Your task to perform on an android device: Open settings on Google Maps Image 0: 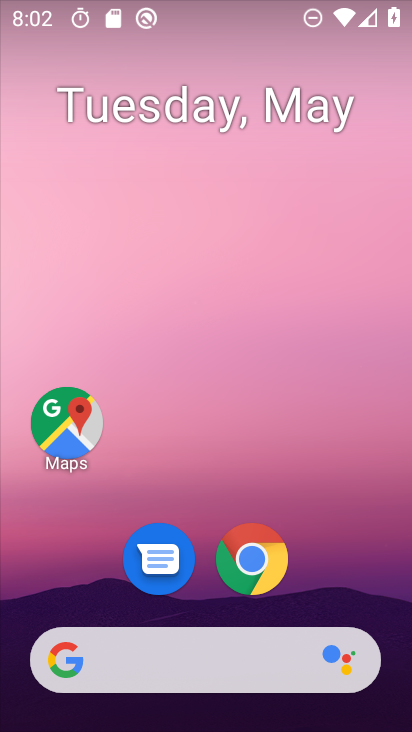
Step 0: drag from (400, 644) to (318, 6)
Your task to perform on an android device: Open settings on Google Maps Image 1: 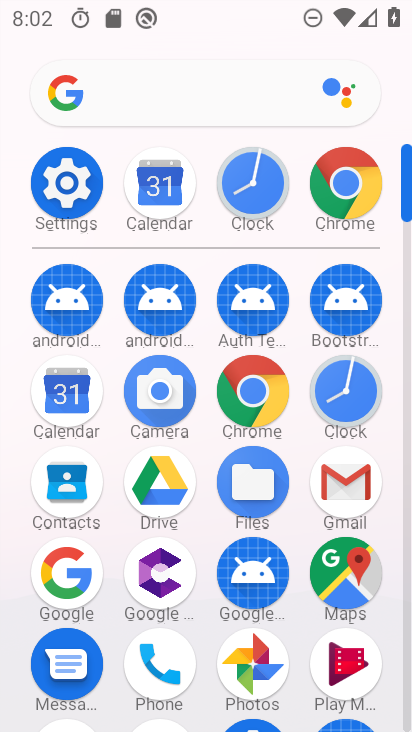
Step 1: click (364, 560)
Your task to perform on an android device: Open settings on Google Maps Image 2: 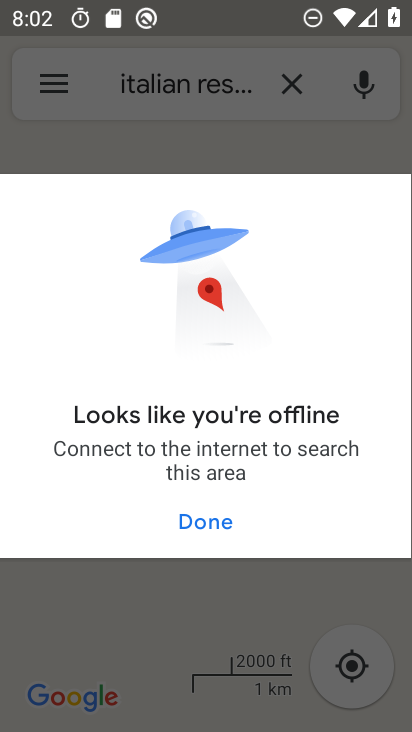
Step 2: press home button
Your task to perform on an android device: Open settings on Google Maps Image 3: 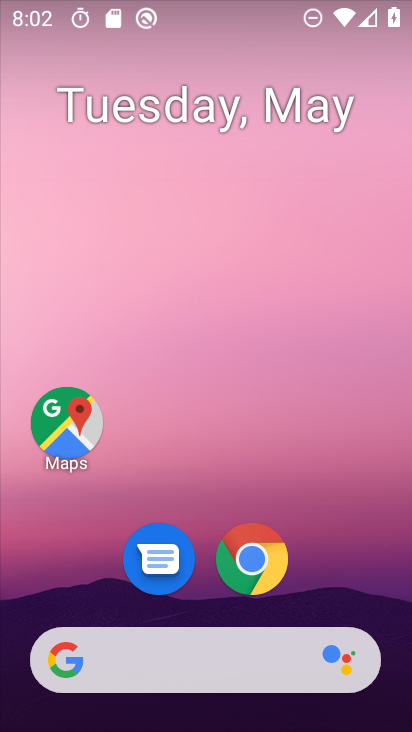
Step 3: drag from (358, 475) to (255, 5)
Your task to perform on an android device: Open settings on Google Maps Image 4: 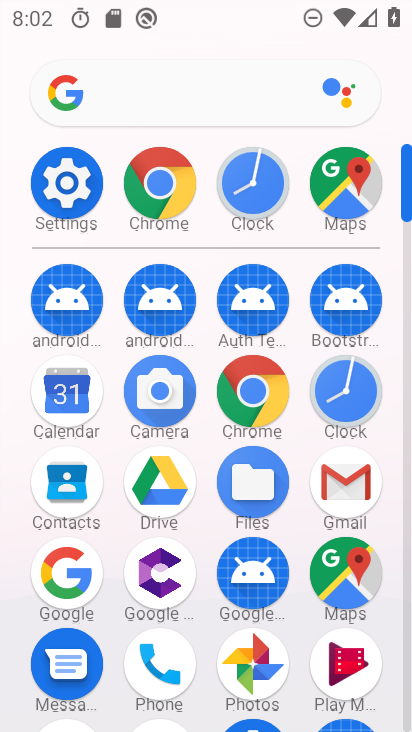
Step 4: click (358, 553)
Your task to perform on an android device: Open settings on Google Maps Image 5: 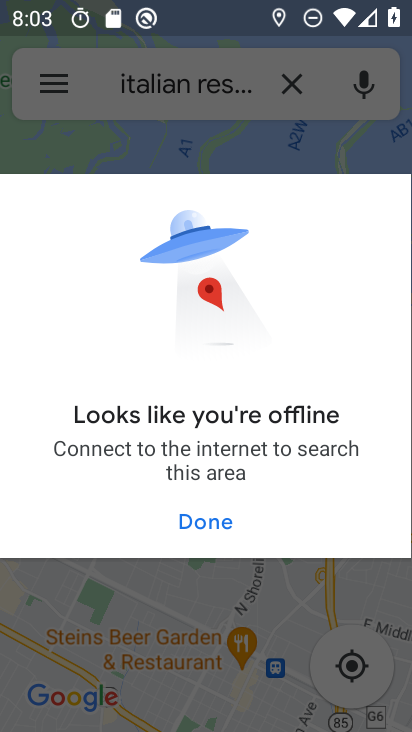
Step 5: press back button
Your task to perform on an android device: Open settings on Google Maps Image 6: 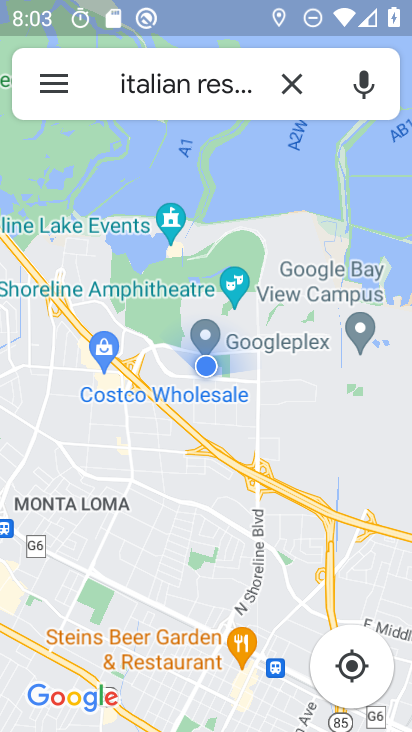
Step 6: click (285, 73)
Your task to perform on an android device: Open settings on Google Maps Image 7: 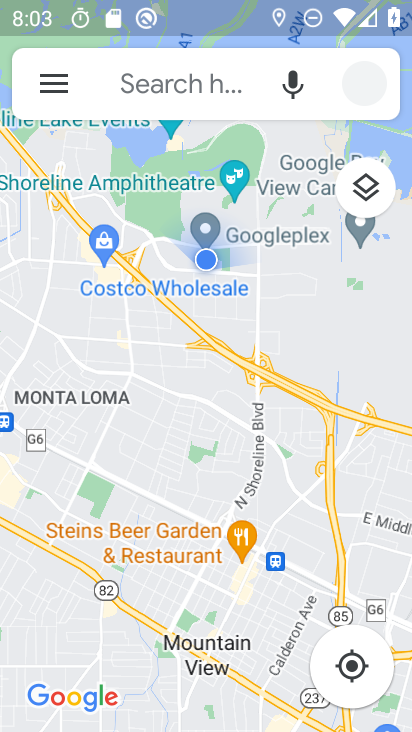
Step 7: click (38, 84)
Your task to perform on an android device: Open settings on Google Maps Image 8: 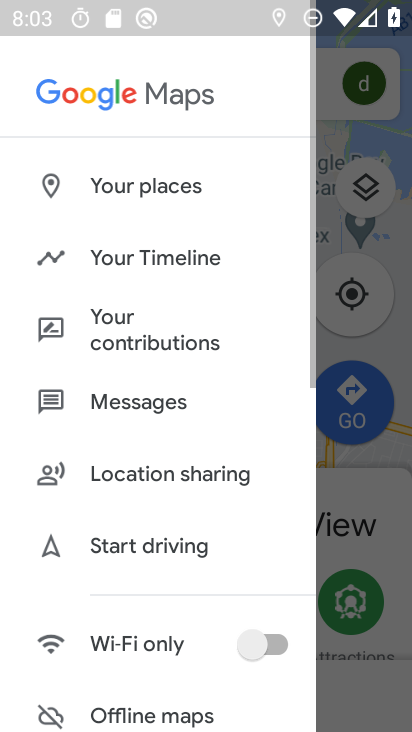
Step 8: drag from (165, 605) to (184, 93)
Your task to perform on an android device: Open settings on Google Maps Image 9: 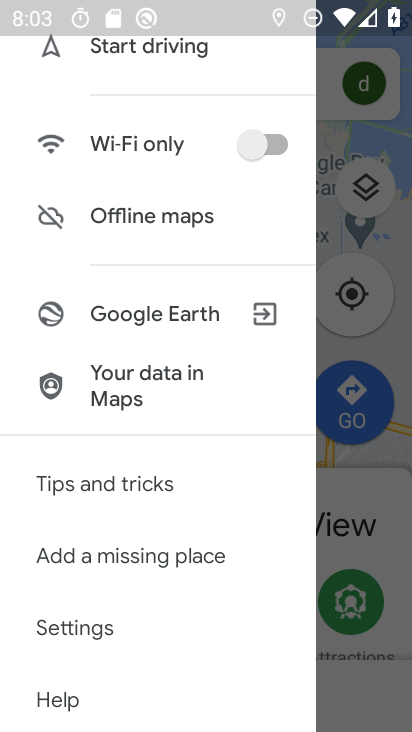
Step 9: click (103, 638)
Your task to perform on an android device: Open settings on Google Maps Image 10: 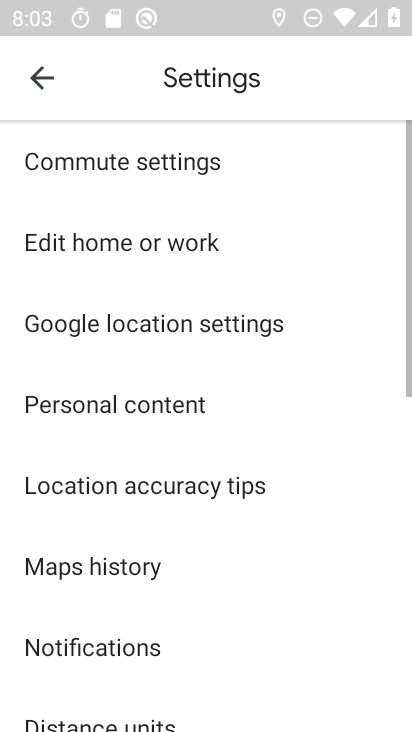
Step 10: task complete